Your task to perform on an android device: Open the stopwatch Image 0: 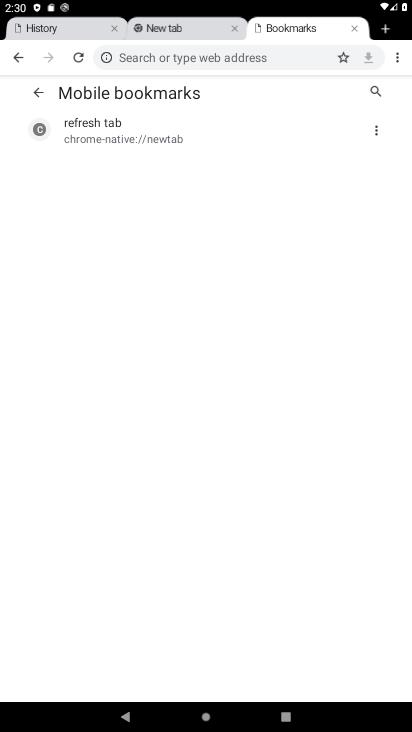
Step 0: press home button
Your task to perform on an android device: Open the stopwatch Image 1: 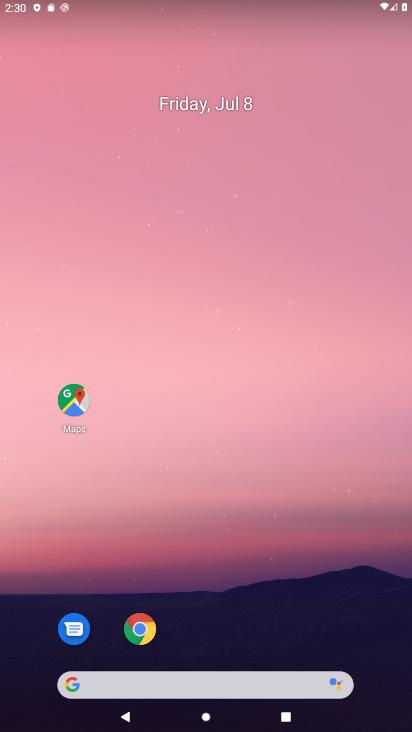
Step 1: drag from (32, 702) to (221, 121)
Your task to perform on an android device: Open the stopwatch Image 2: 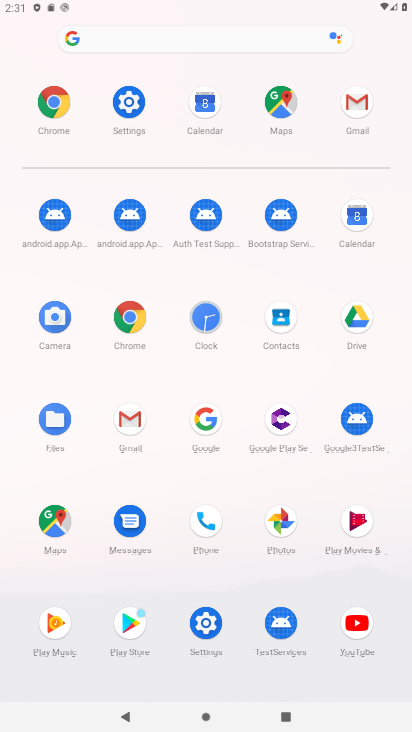
Step 2: click (212, 328)
Your task to perform on an android device: Open the stopwatch Image 3: 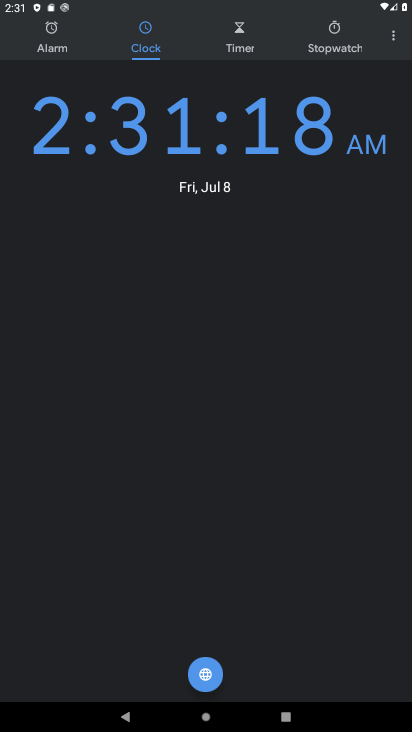
Step 3: click (334, 35)
Your task to perform on an android device: Open the stopwatch Image 4: 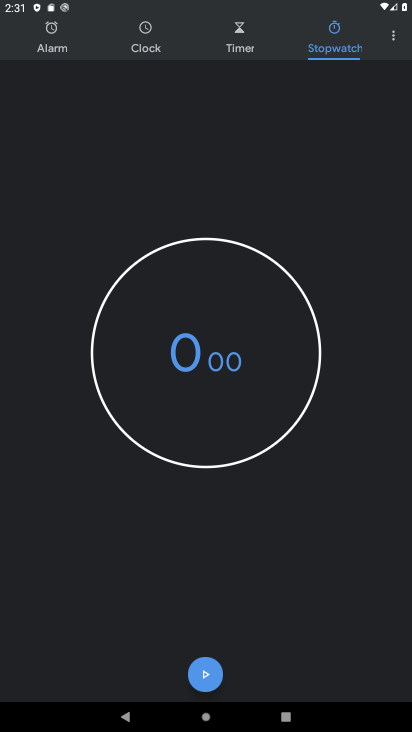
Step 4: task complete